Your task to perform on an android device: Open the calendar app, open the side menu, and click the "Day" option Image 0: 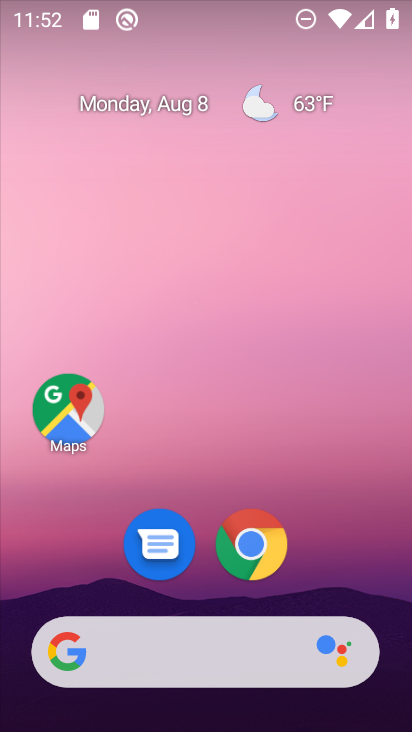
Step 0: drag from (147, 662) to (244, 51)
Your task to perform on an android device: Open the calendar app, open the side menu, and click the "Day" option Image 1: 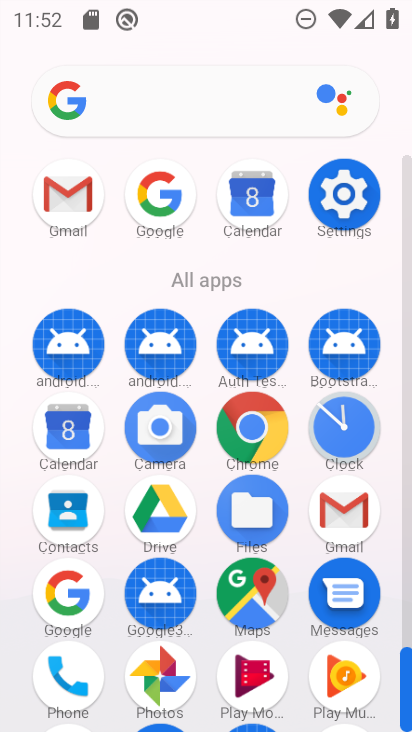
Step 1: click (254, 199)
Your task to perform on an android device: Open the calendar app, open the side menu, and click the "Day" option Image 2: 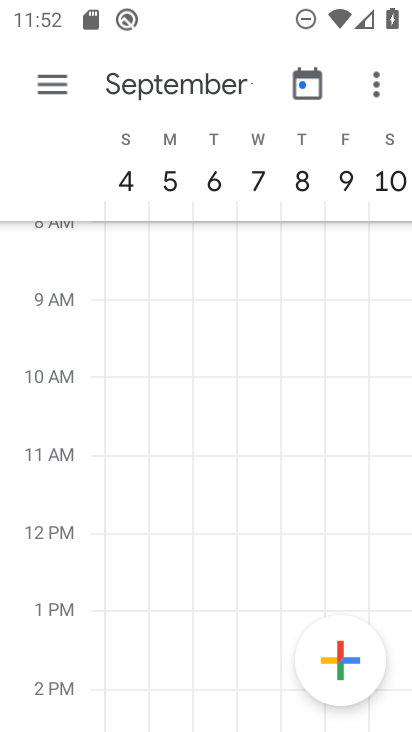
Step 2: click (62, 90)
Your task to perform on an android device: Open the calendar app, open the side menu, and click the "Day" option Image 3: 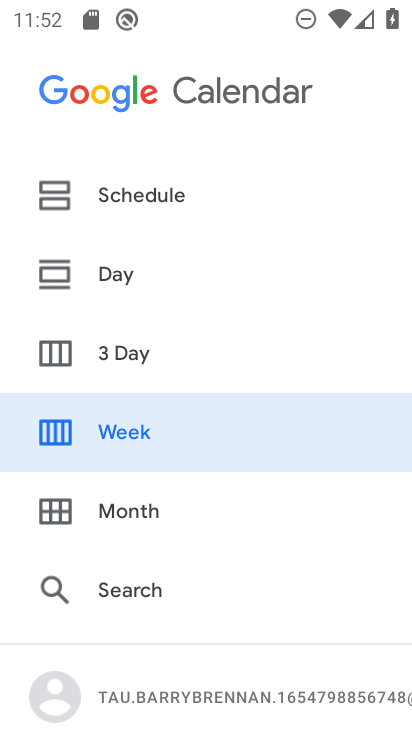
Step 3: click (107, 271)
Your task to perform on an android device: Open the calendar app, open the side menu, and click the "Day" option Image 4: 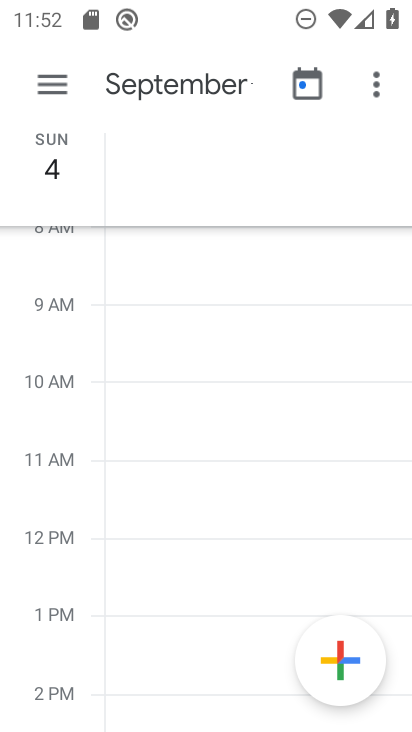
Step 4: task complete